Your task to perform on an android device: turn on priority inbox in the gmail app Image 0: 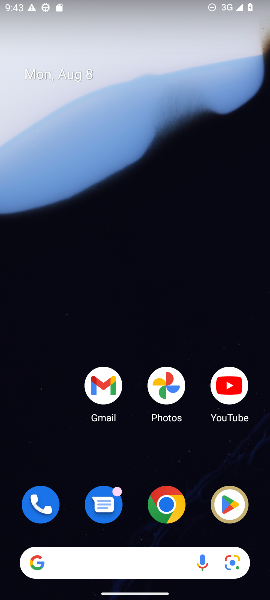
Step 0: drag from (149, 507) to (157, 293)
Your task to perform on an android device: turn on priority inbox in the gmail app Image 1: 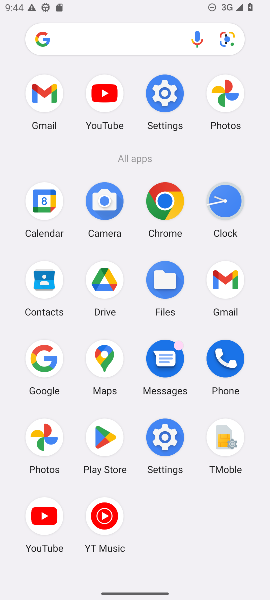
Step 1: click (222, 280)
Your task to perform on an android device: turn on priority inbox in the gmail app Image 2: 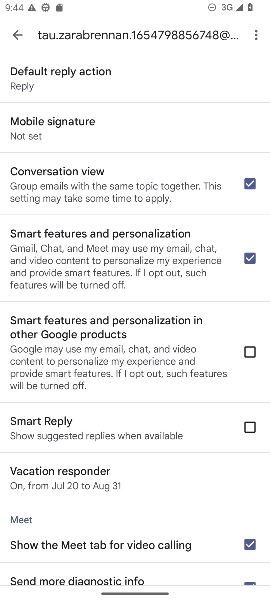
Step 2: drag from (112, 146) to (137, 495)
Your task to perform on an android device: turn on priority inbox in the gmail app Image 3: 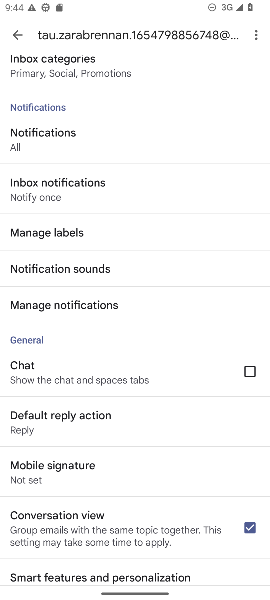
Step 3: drag from (125, 167) to (124, 483)
Your task to perform on an android device: turn on priority inbox in the gmail app Image 4: 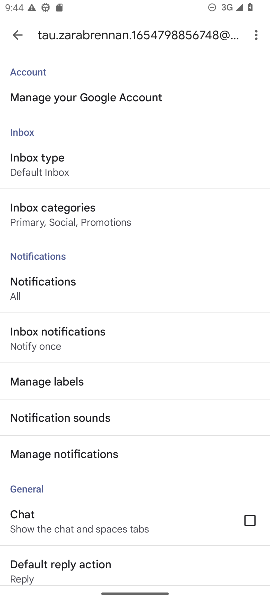
Step 4: click (74, 165)
Your task to perform on an android device: turn on priority inbox in the gmail app Image 5: 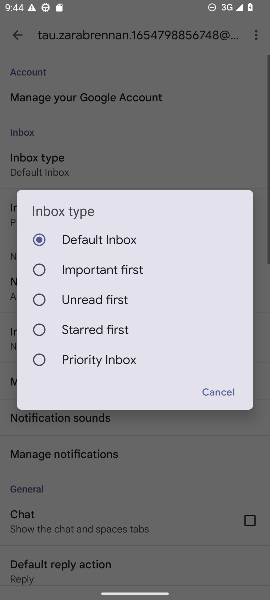
Step 5: click (92, 363)
Your task to perform on an android device: turn on priority inbox in the gmail app Image 6: 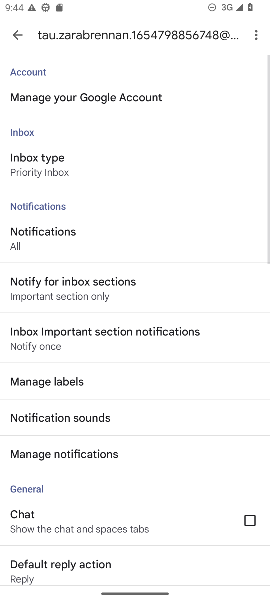
Step 6: task complete